Your task to perform on an android device: What is the news today? Image 0: 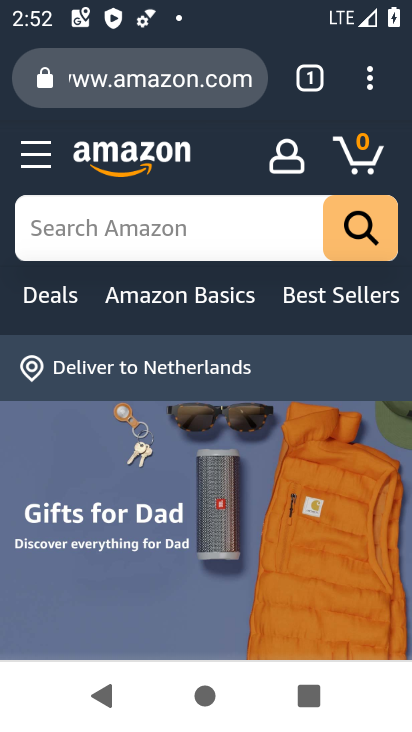
Step 0: press home button
Your task to perform on an android device: What is the news today? Image 1: 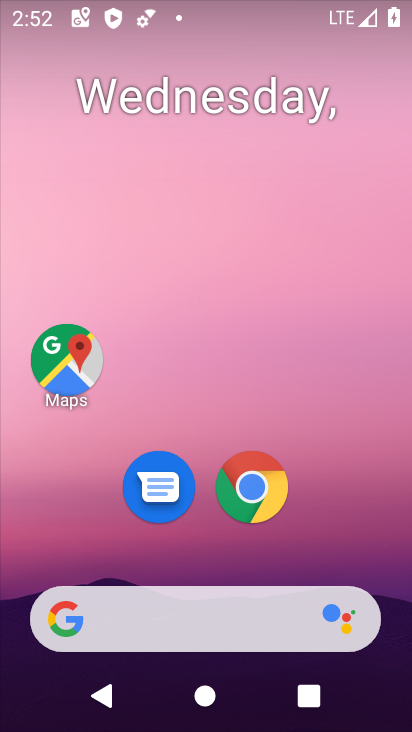
Step 1: click (251, 615)
Your task to perform on an android device: What is the news today? Image 2: 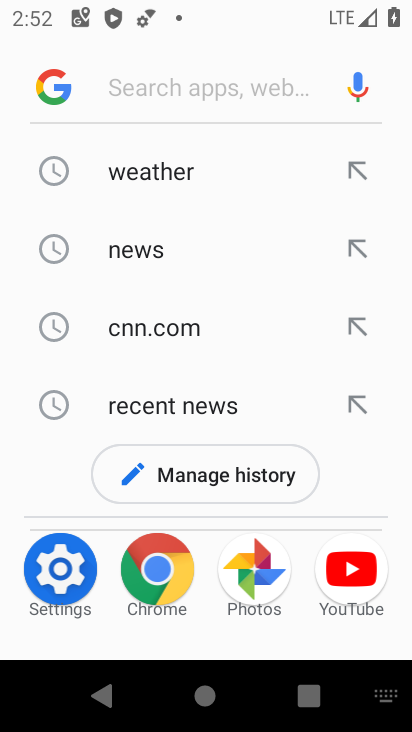
Step 2: click (131, 243)
Your task to perform on an android device: What is the news today? Image 3: 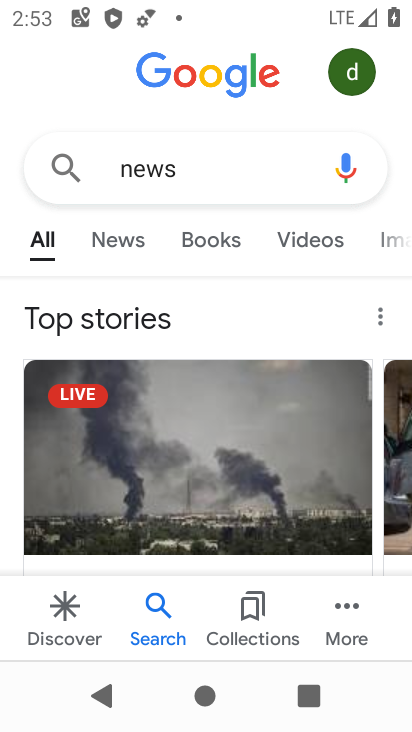
Step 3: click (119, 237)
Your task to perform on an android device: What is the news today? Image 4: 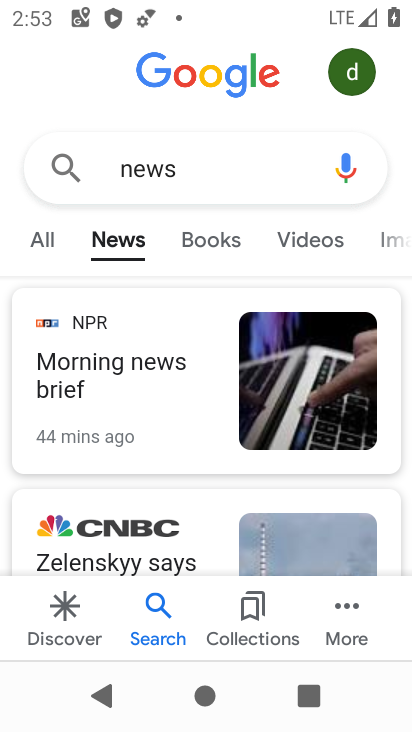
Step 4: task complete